Your task to perform on an android device: Search for seafood restaurants on Google Maps Image 0: 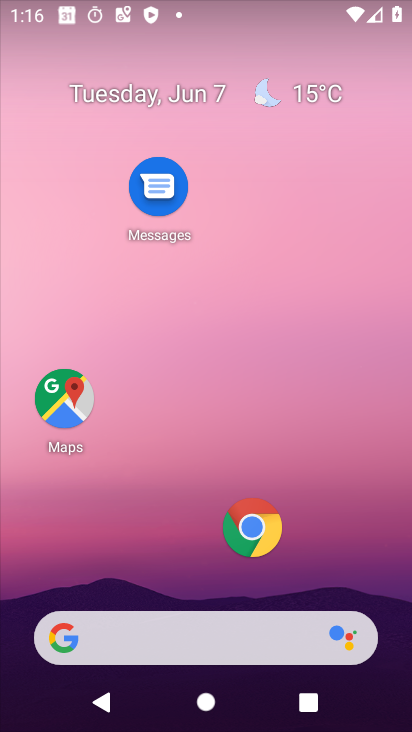
Step 0: drag from (170, 612) to (181, 232)
Your task to perform on an android device: Search for seafood restaurants on Google Maps Image 1: 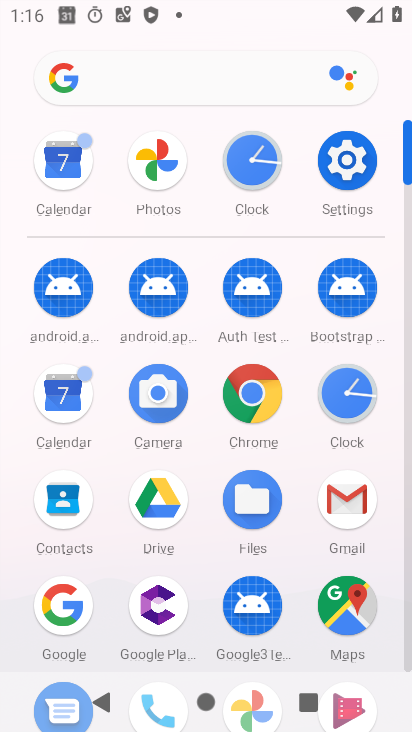
Step 1: click (324, 607)
Your task to perform on an android device: Search for seafood restaurants on Google Maps Image 2: 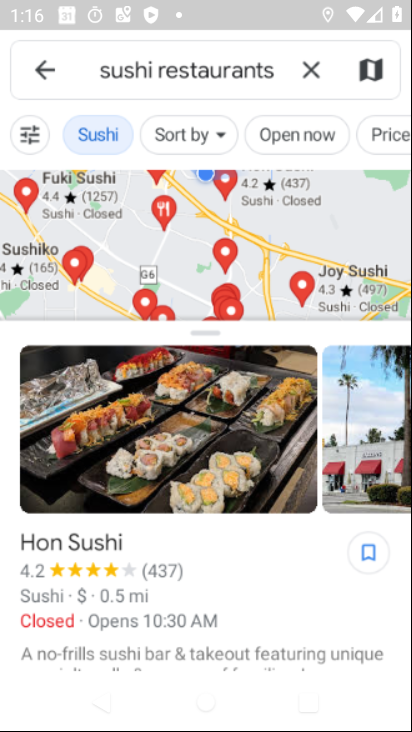
Step 2: click (300, 81)
Your task to perform on an android device: Search for seafood restaurants on Google Maps Image 3: 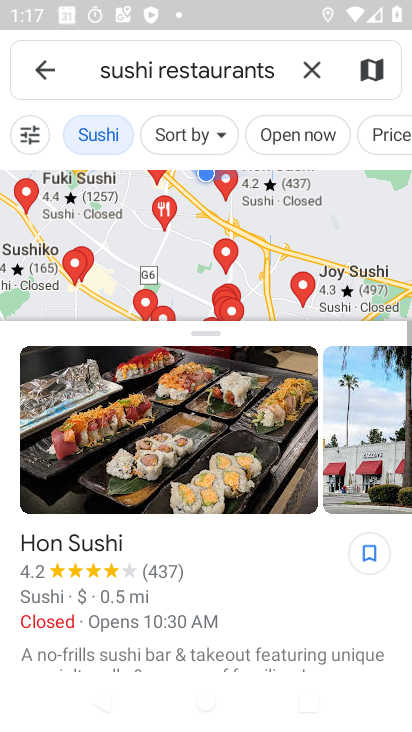
Step 3: click (308, 73)
Your task to perform on an android device: Search for seafood restaurants on Google Maps Image 4: 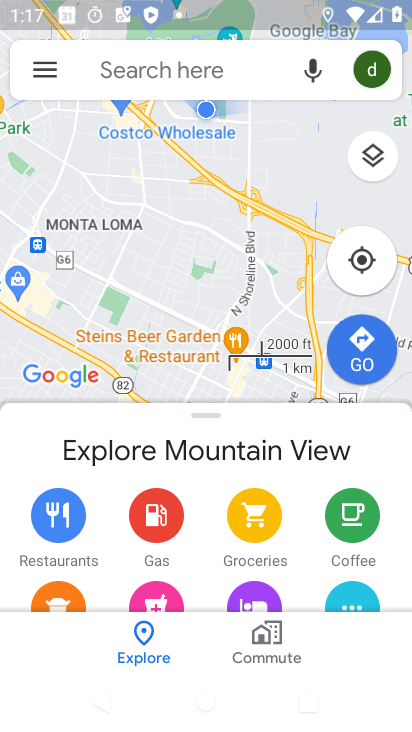
Step 4: click (246, 74)
Your task to perform on an android device: Search for seafood restaurants on Google Maps Image 5: 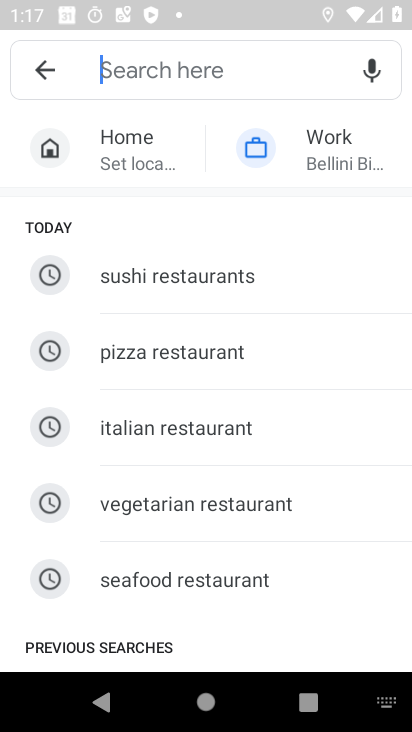
Step 5: click (129, 584)
Your task to perform on an android device: Search for seafood restaurants on Google Maps Image 6: 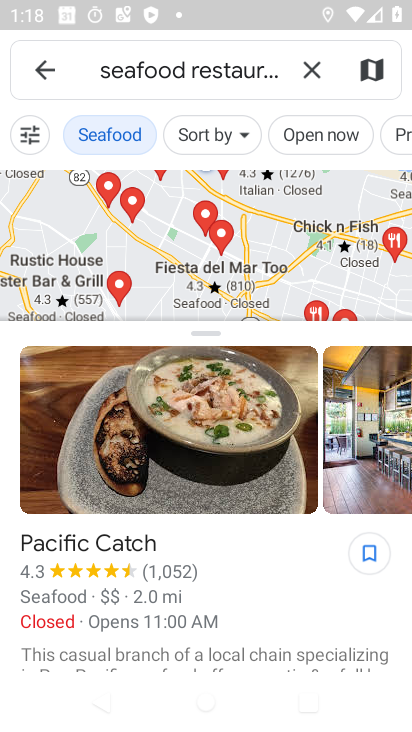
Step 6: task complete